Your task to perform on an android device: Go to display settings Image 0: 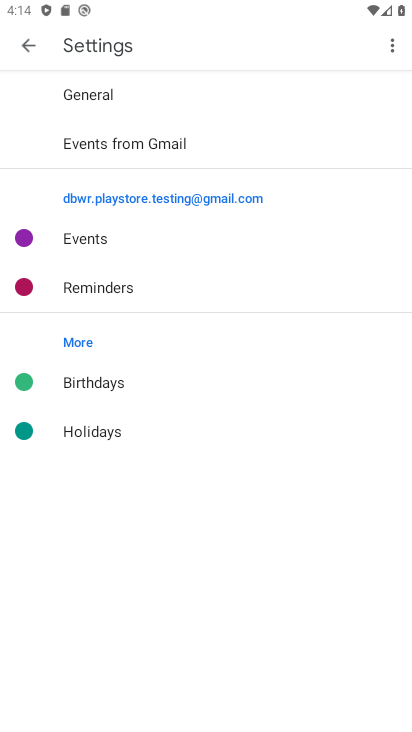
Step 0: press home button
Your task to perform on an android device: Go to display settings Image 1: 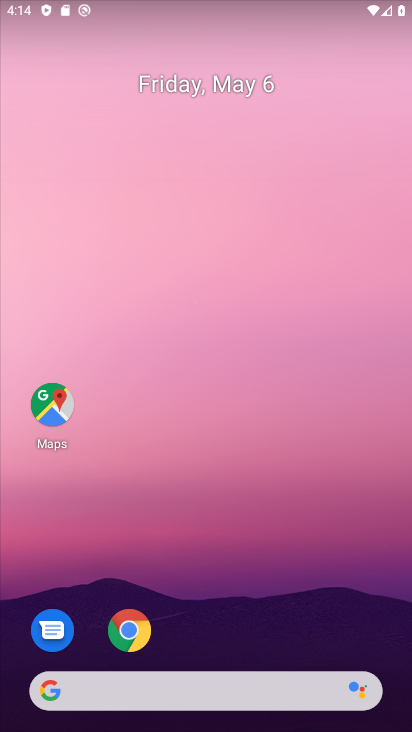
Step 1: drag from (268, 365) to (268, 142)
Your task to perform on an android device: Go to display settings Image 2: 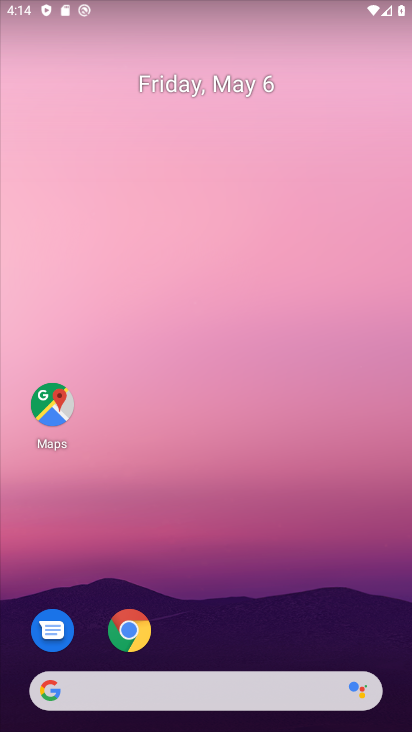
Step 2: drag from (270, 674) to (269, 230)
Your task to perform on an android device: Go to display settings Image 3: 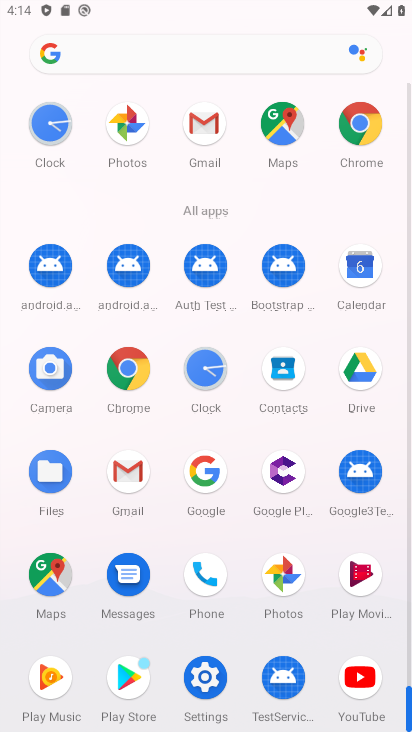
Step 3: drag from (246, 482) to (246, 373)
Your task to perform on an android device: Go to display settings Image 4: 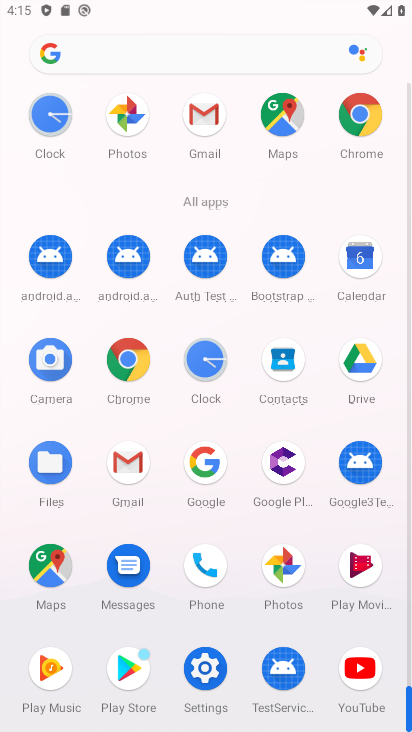
Step 4: click (208, 685)
Your task to perform on an android device: Go to display settings Image 5: 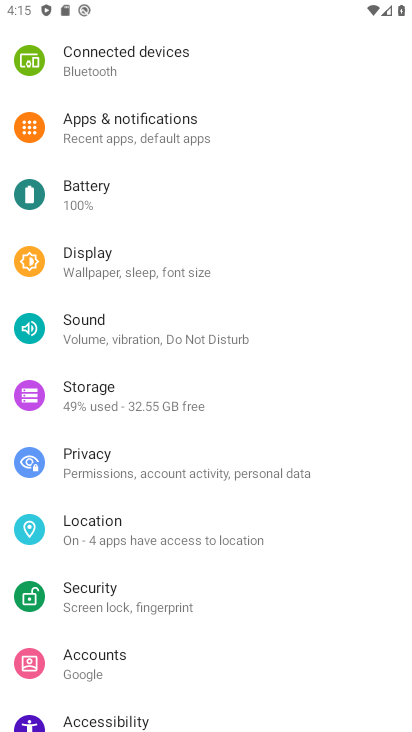
Step 5: drag from (237, 517) to (249, 469)
Your task to perform on an android device: Go to display settings Image 6: 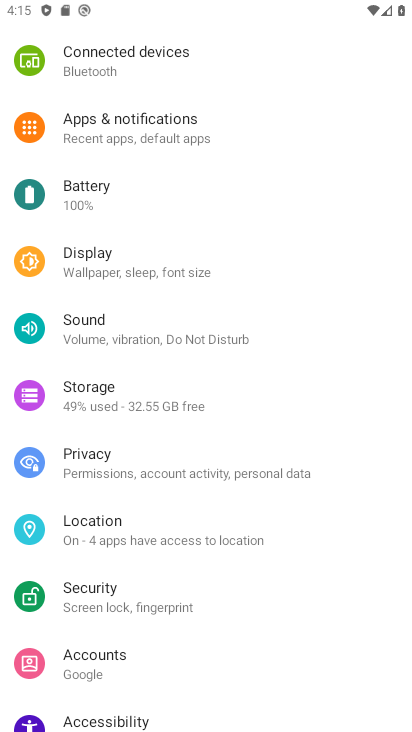
Step 6: drag from (196, 574) to (174, 346)
Your task to perform on an android device: Go to display settings Image 7: 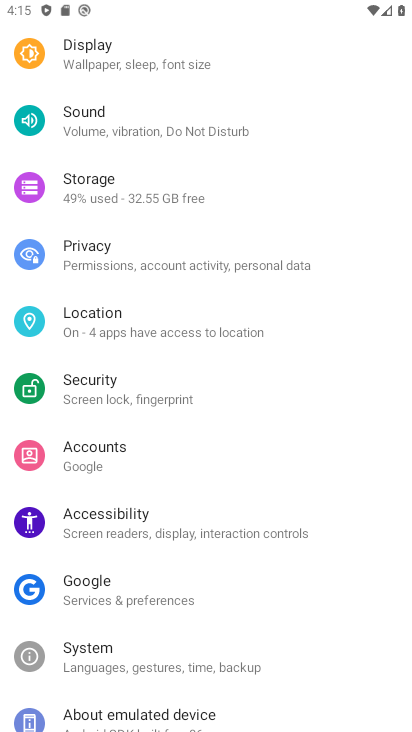
Step 7: click (127, 57)
Your task to perform on an android device: Go to display settings Image 8: 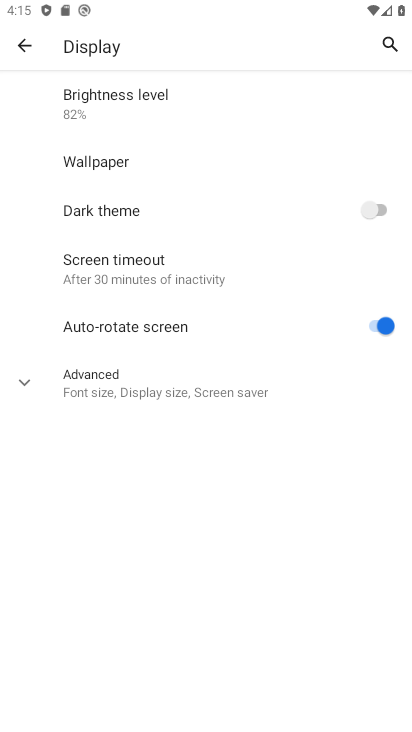
Step 8: click (159, 388)
Your task to perform on an android device: Go to display settings Image 9: 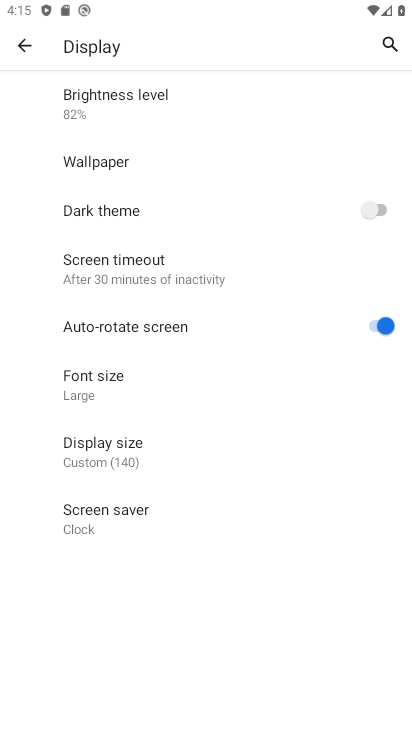
Step 9: task complete